Your task to perform on an android device: open a bookmark in the chrome app Image 0: 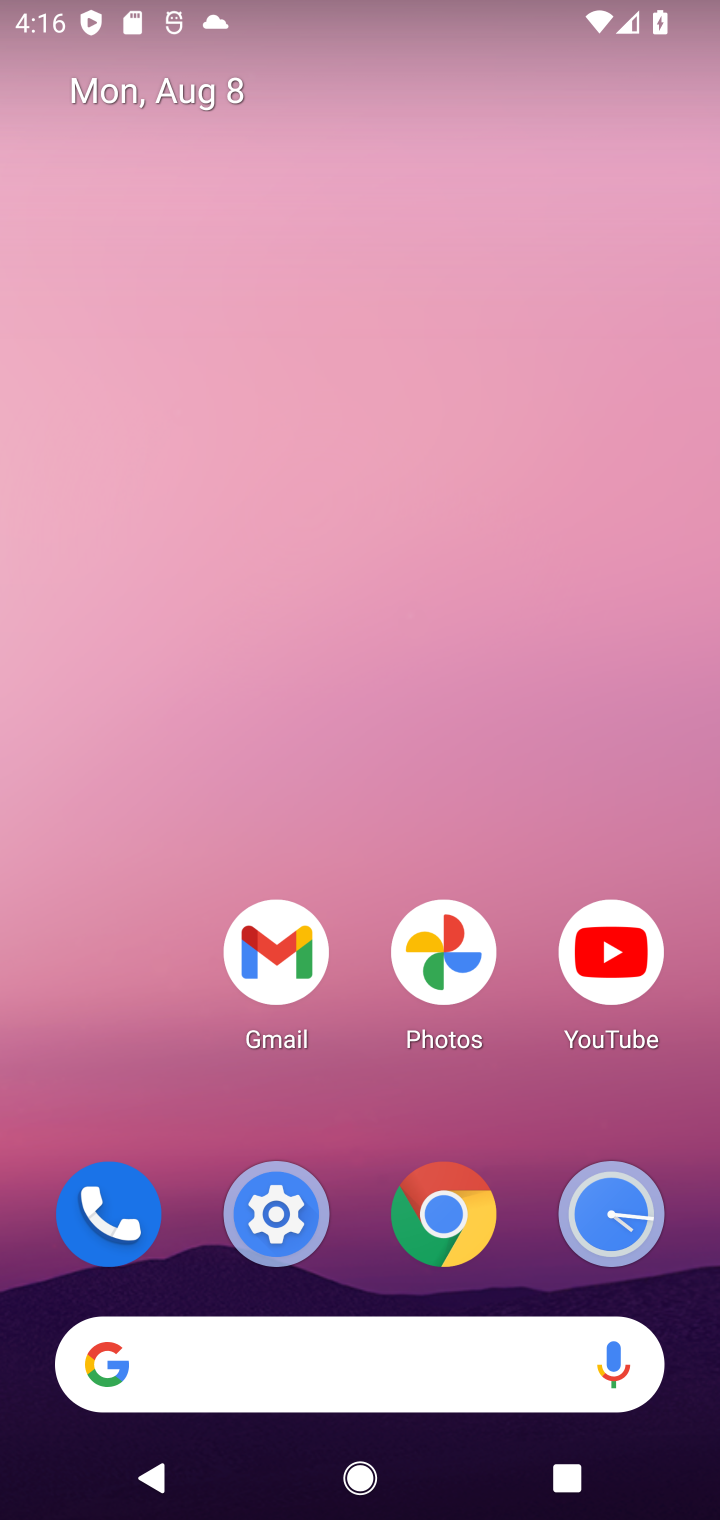
Step 0: click (441, 1207)
Your task to perform on an android device: open a bookmark in the chrome app Image 1: 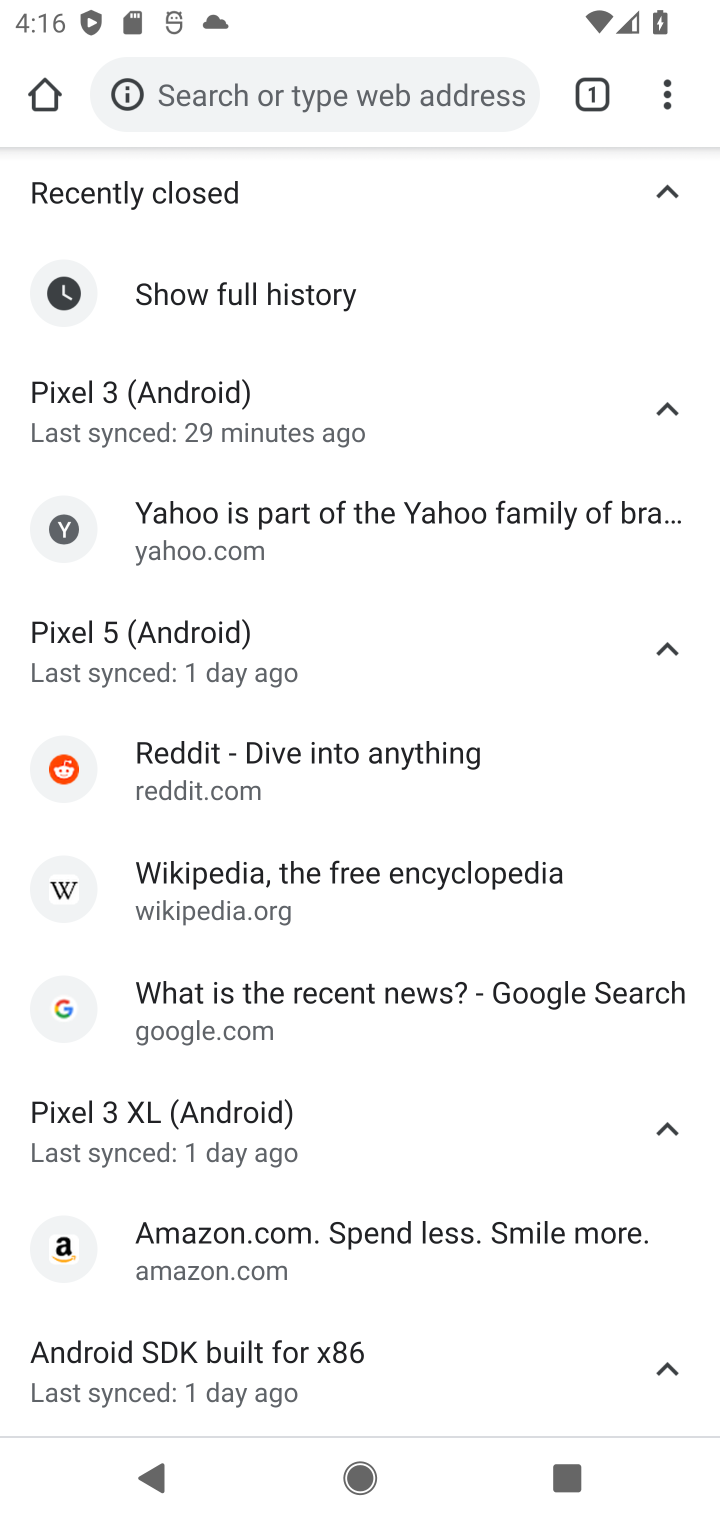
Step 1: click (667, 110)
Your task to perform on an android device: open a bookmark in the chrome app Image 2: 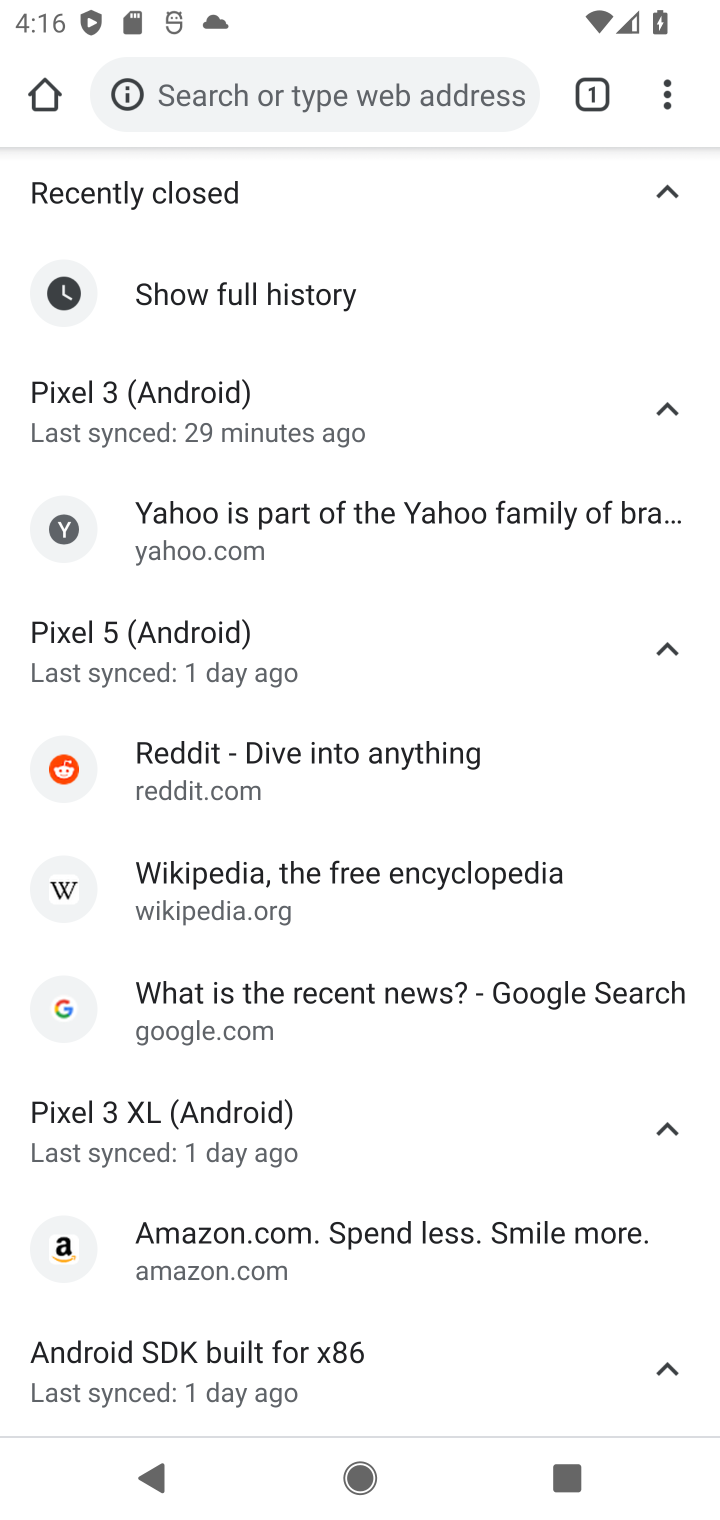
Step 2: click (669, 97)
Your task to perform on an android device: open a bookmark in the chrome app Image 3: 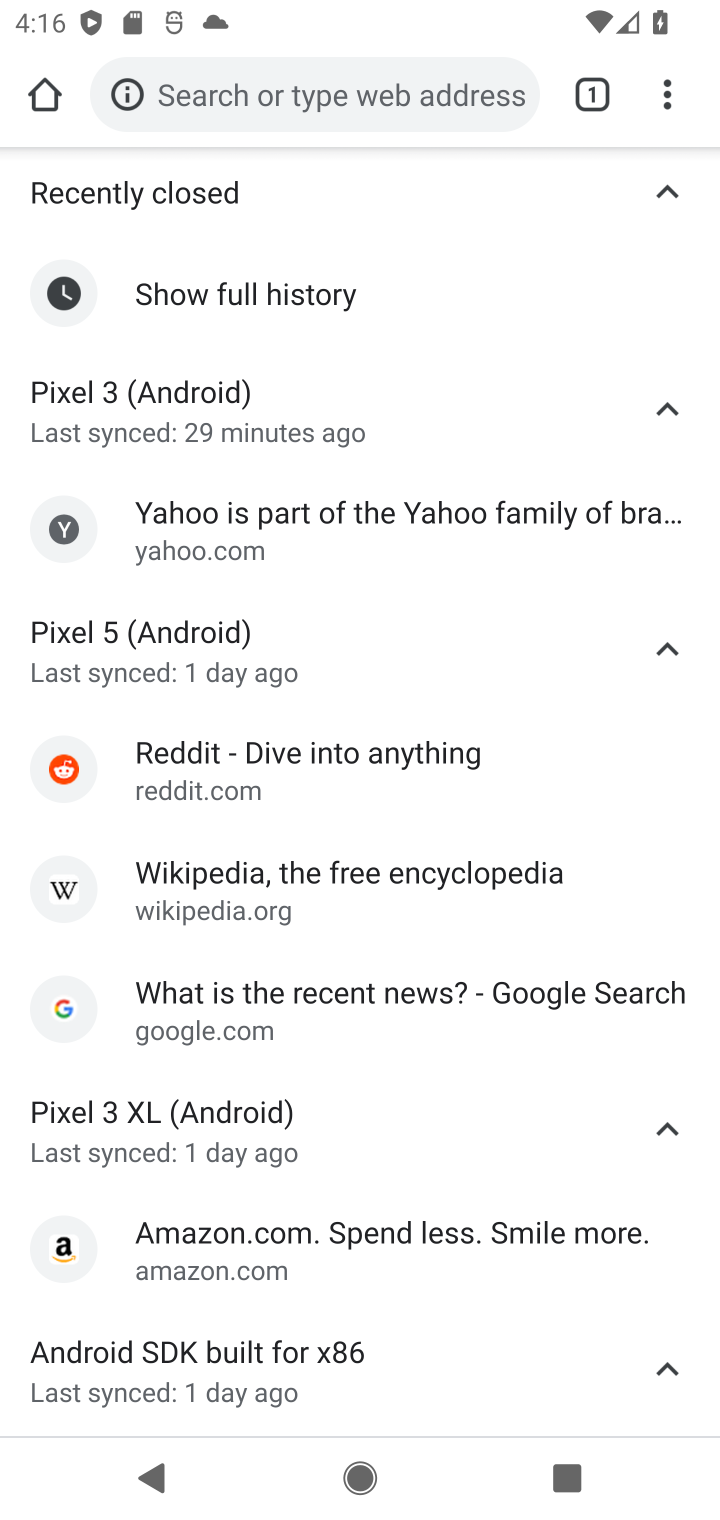
Step 3: drag from (671, 99) to (393, 687)
Your task to perform on an android device: open a bookmark in the chrome app Image 4: 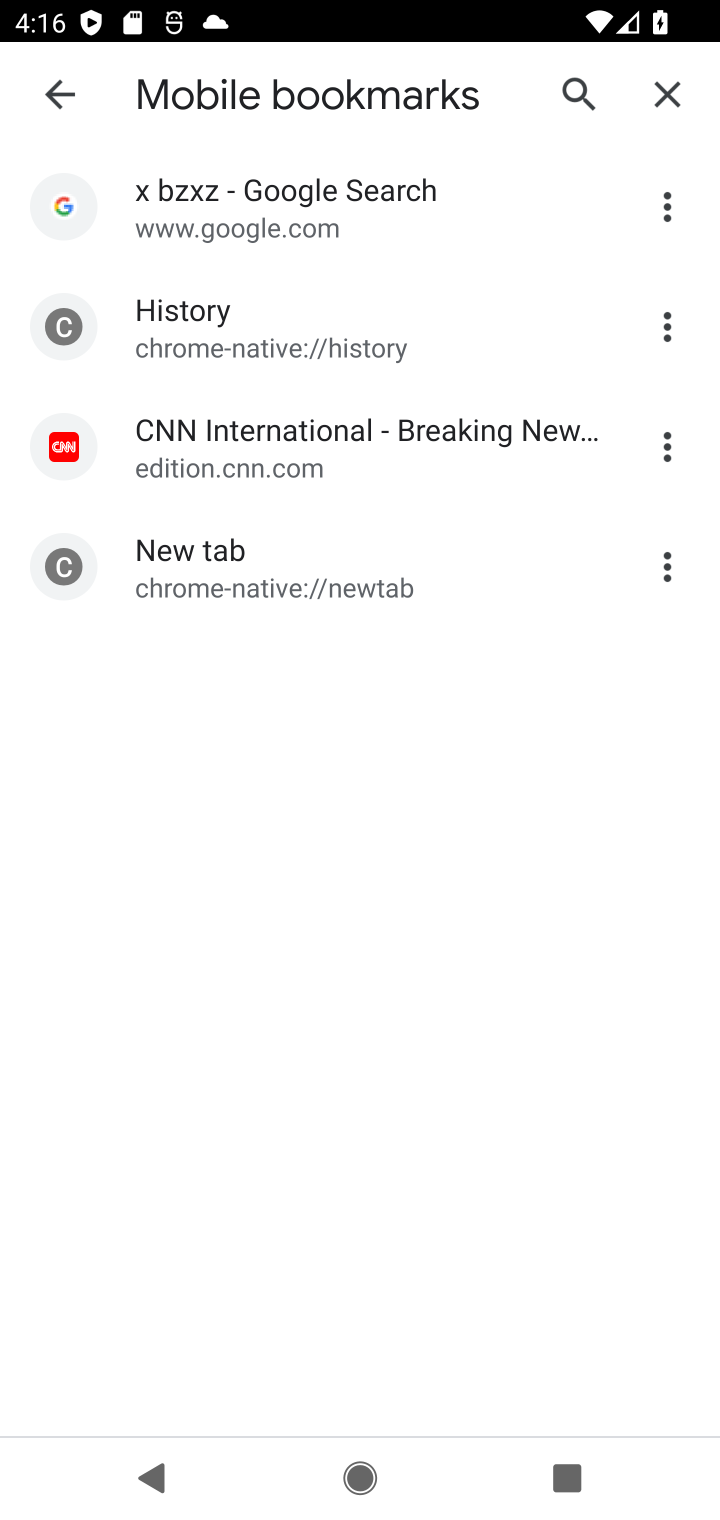
Step 4: click (219, 204)
Your task to perform on an android device: open a bookmark in the chrome app Image 5: 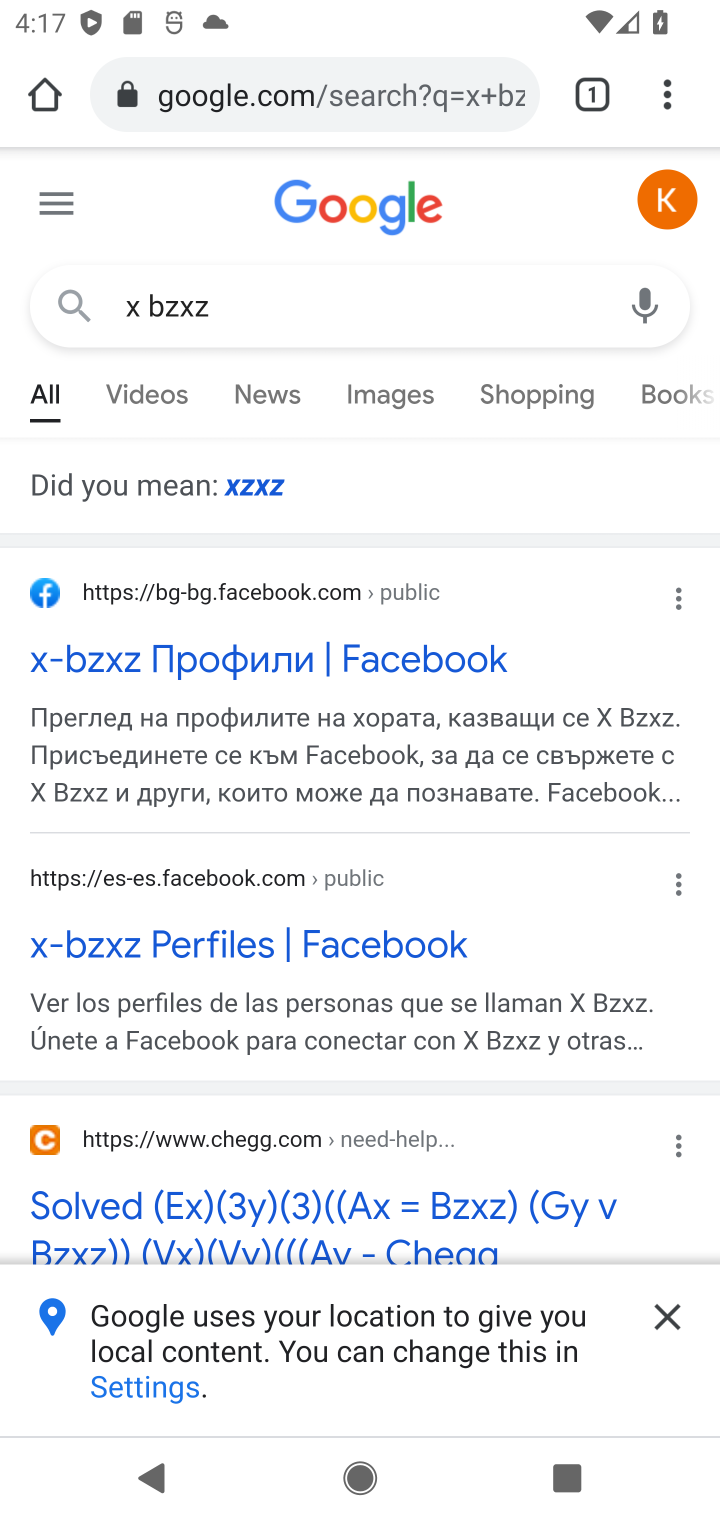
Step 5: task complete